Your task to perform on an android device: open chrome and create a bookmark for the current page Image 0: 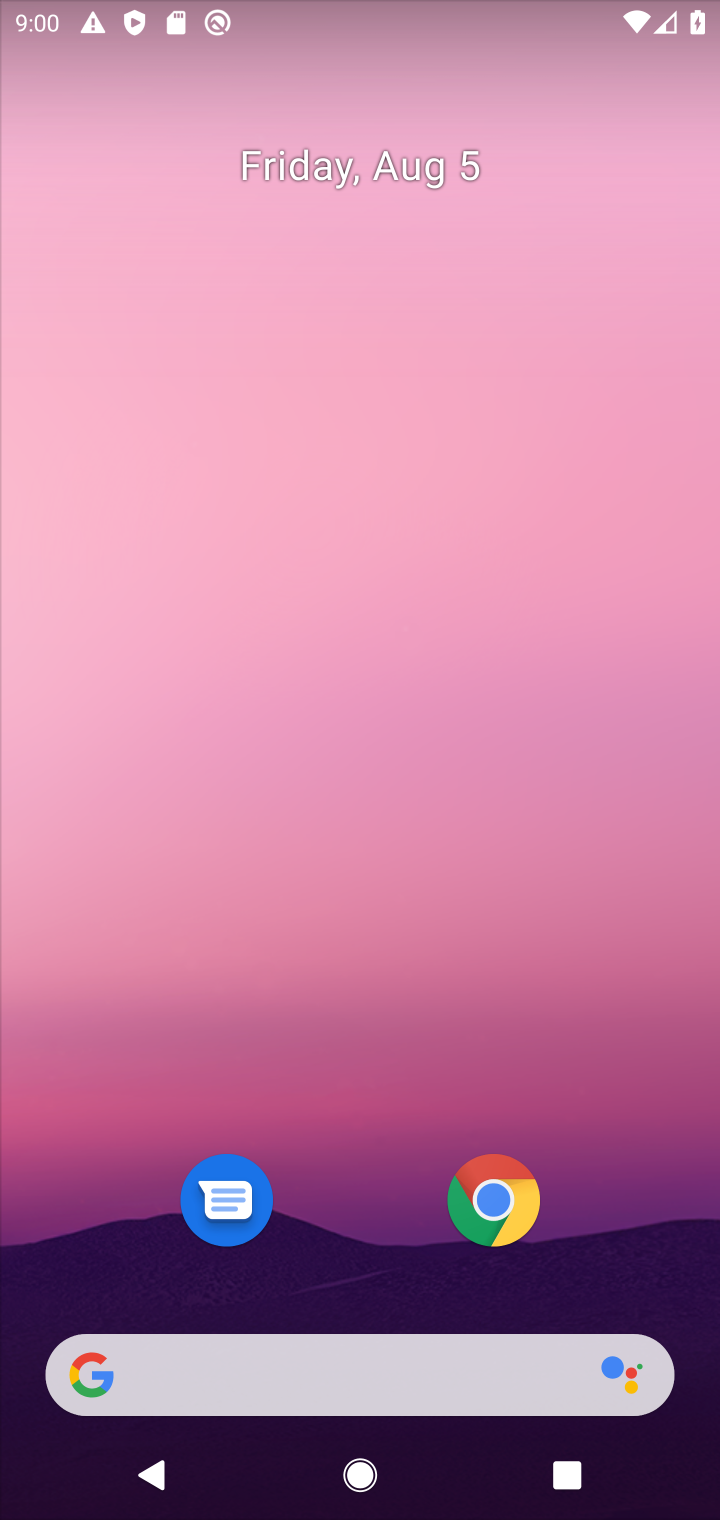
Step 0: drag from (404, 445) to (352, 0)
Your task to perform on an android device: open chrome and create a bookmark for the current page Image 1: 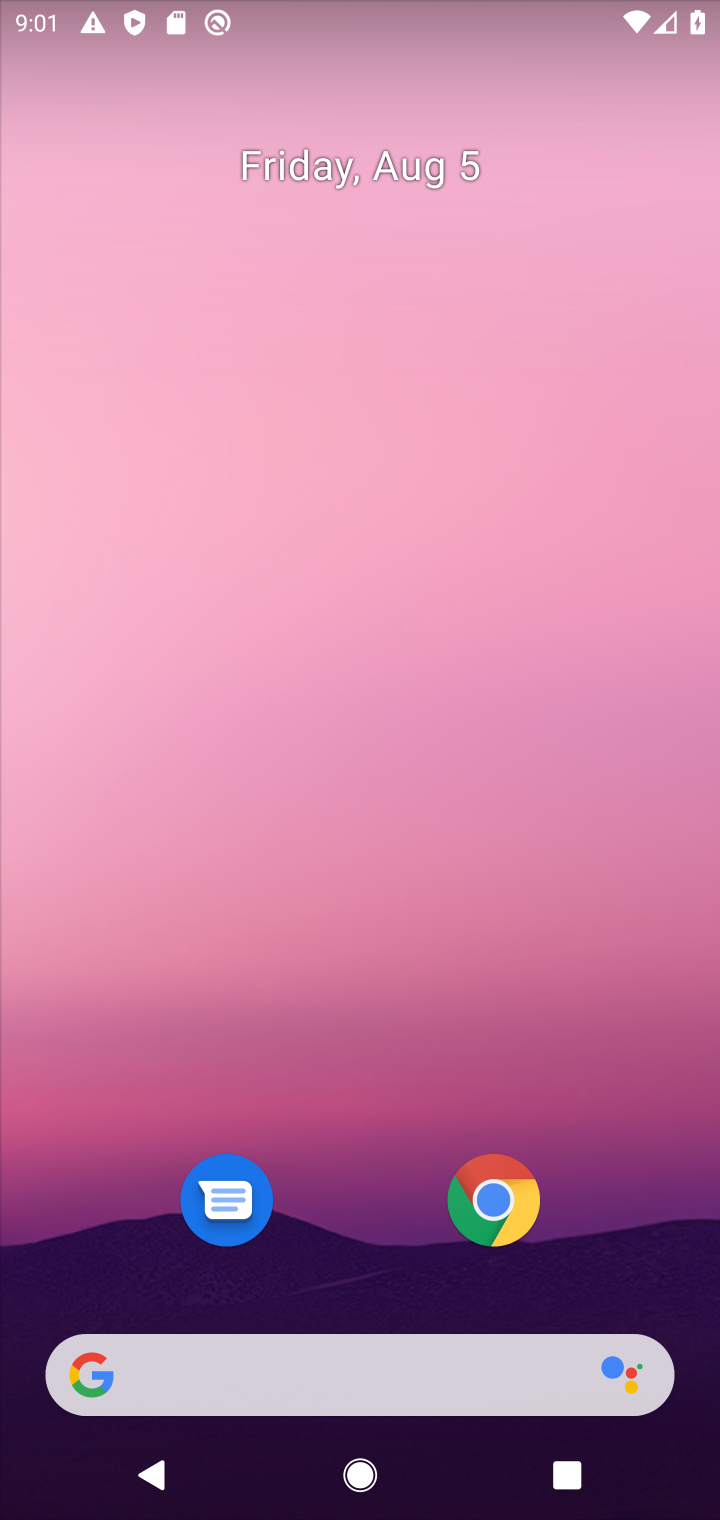
Step 1: drag from (618, 947) to (482, 178)
Your task to perform on an android device: open chrome and create a bookmark for the current page Image 2: 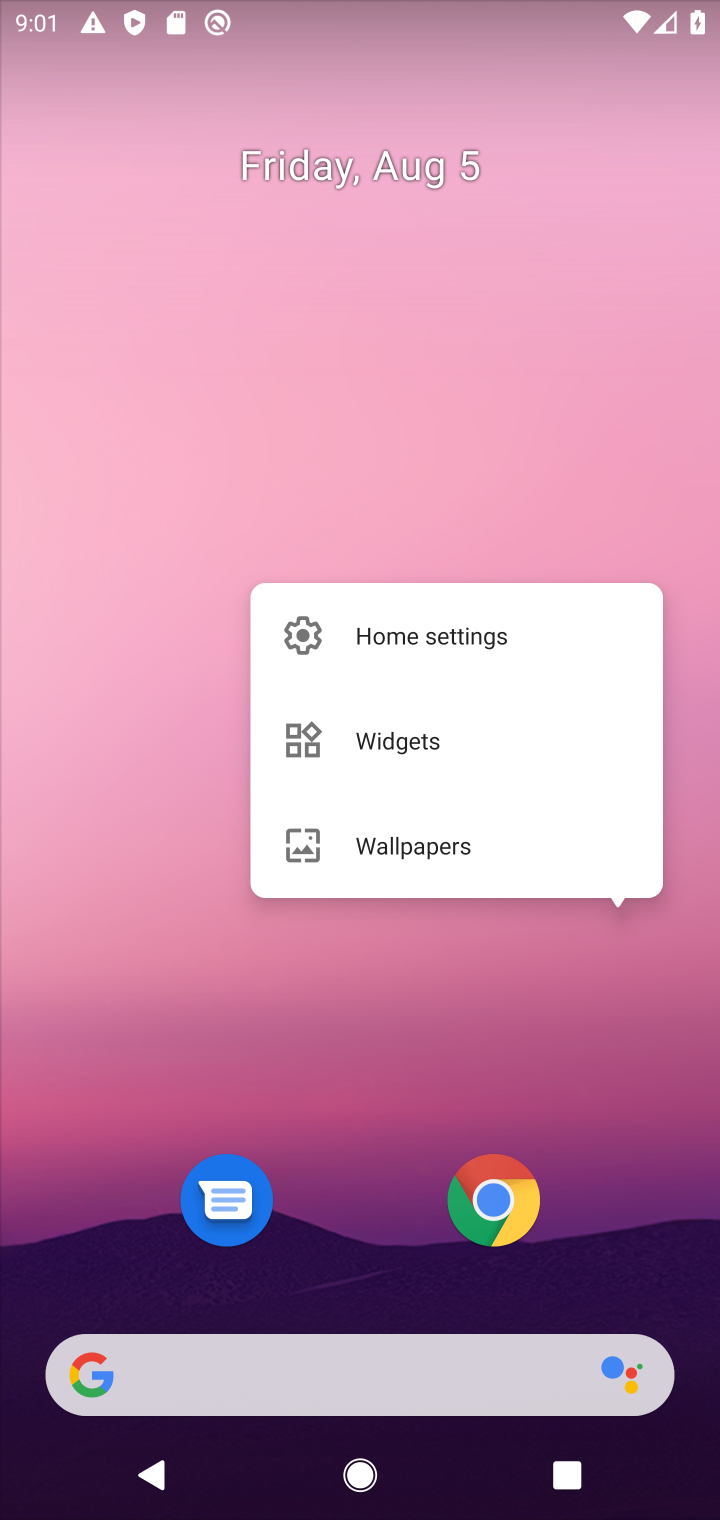
Step 2: click (576, 1076)
Your task to perform on an android device: open chrome and create a bookmark for the current page Image 3: 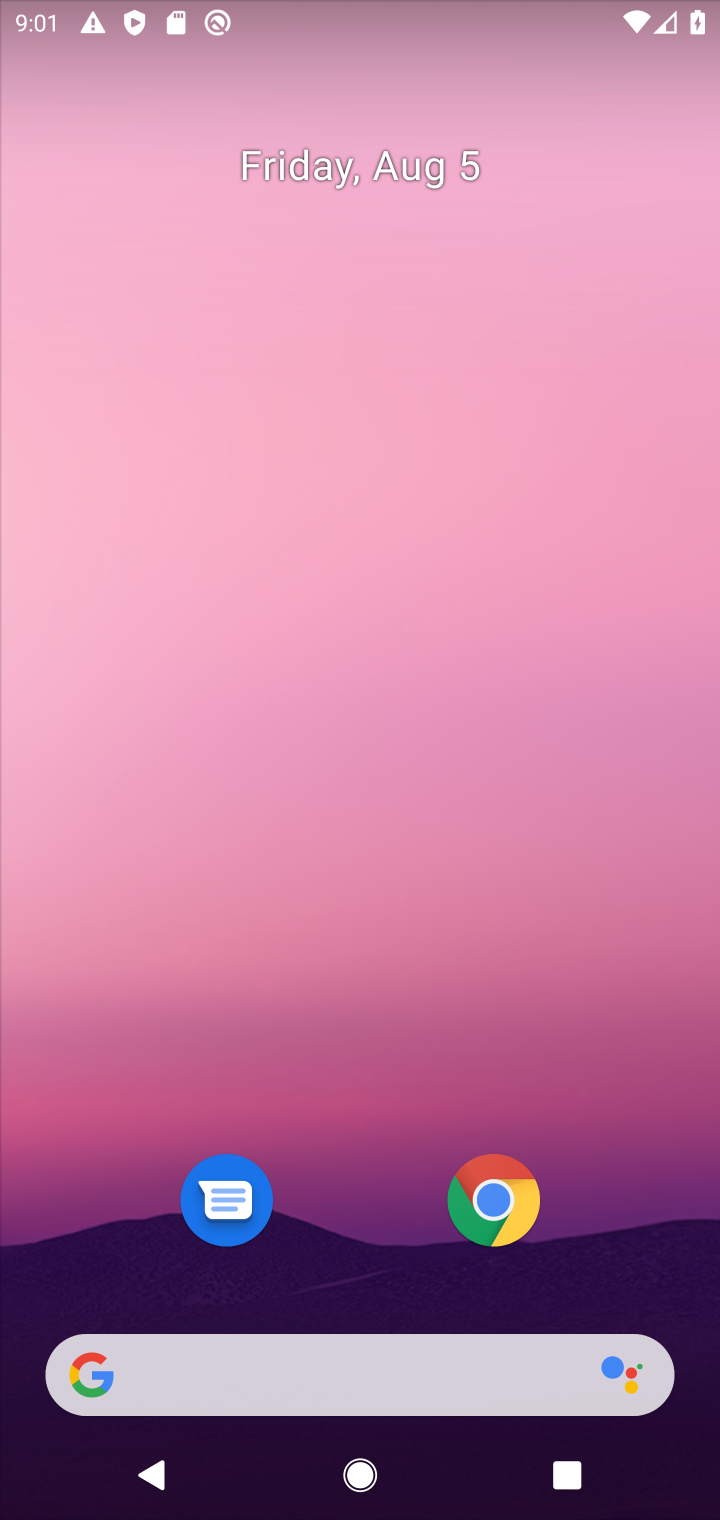
Step 3: click (592, 1131)
Your task to perform on an android device: open chrome and create a bookmark for the current page Image 4: 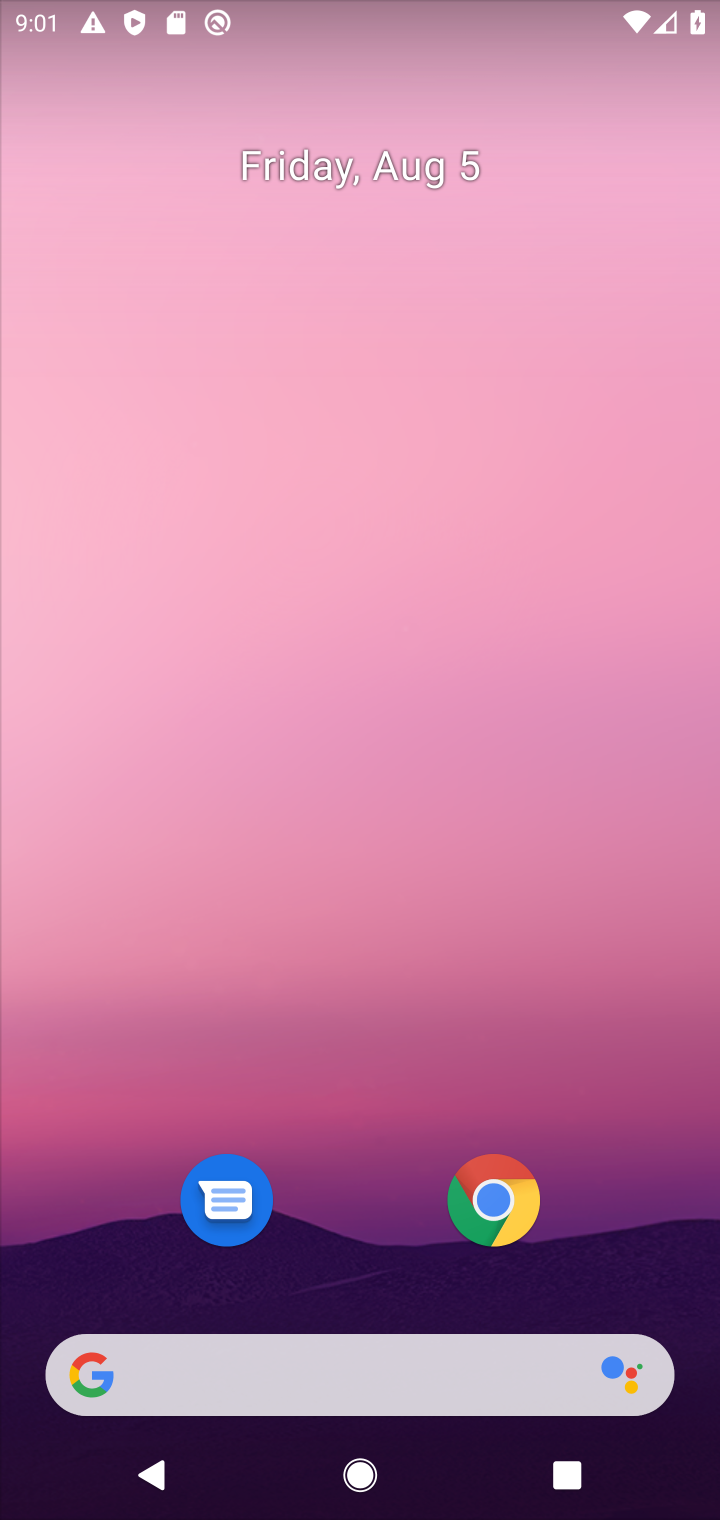
Step 4: drag from (639, 1183) to (560, 103)
Your task to perform on an android device: open chrome and create a bookmark for the current page Image 5: 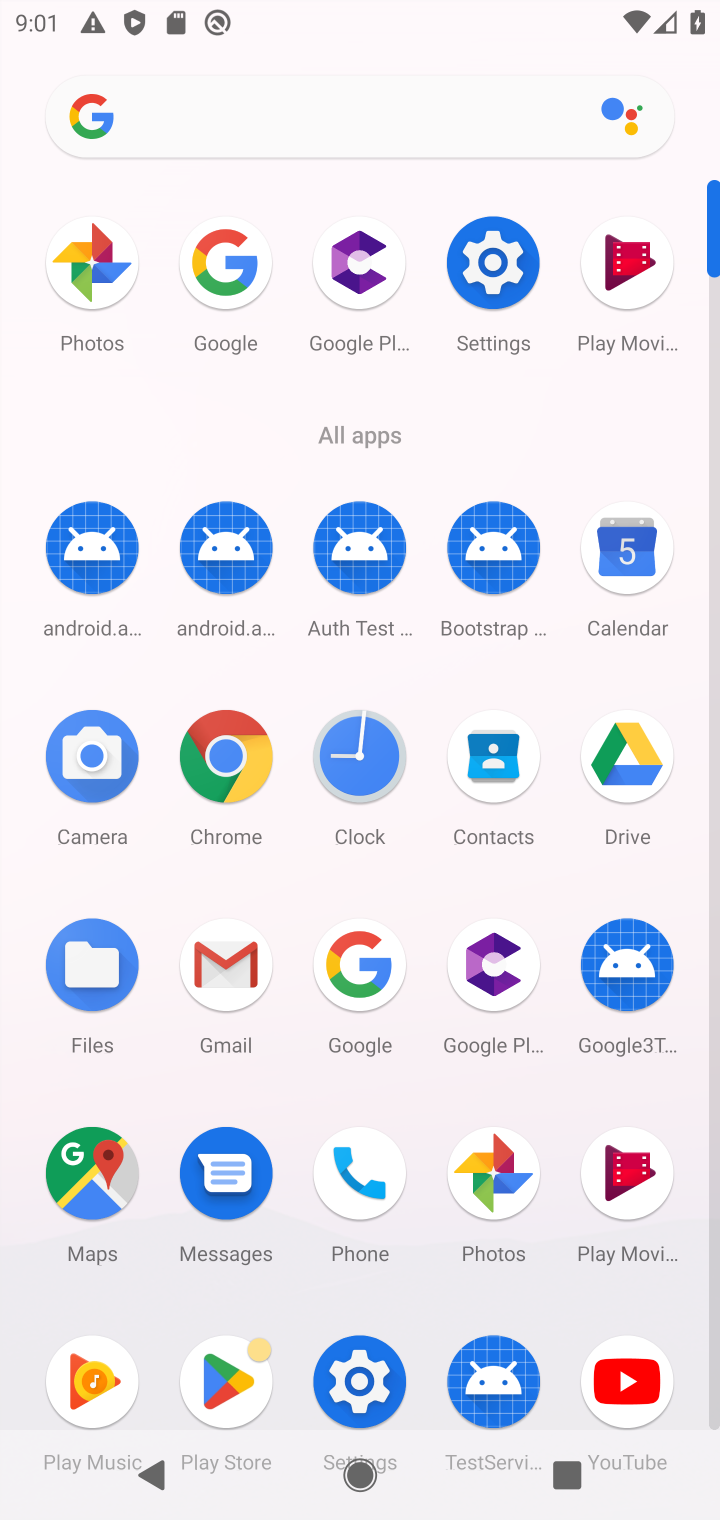
Step 5: click (228, 756)
Your task to perform on an android device: open chrome and create a bookmark for the current page Image 6: 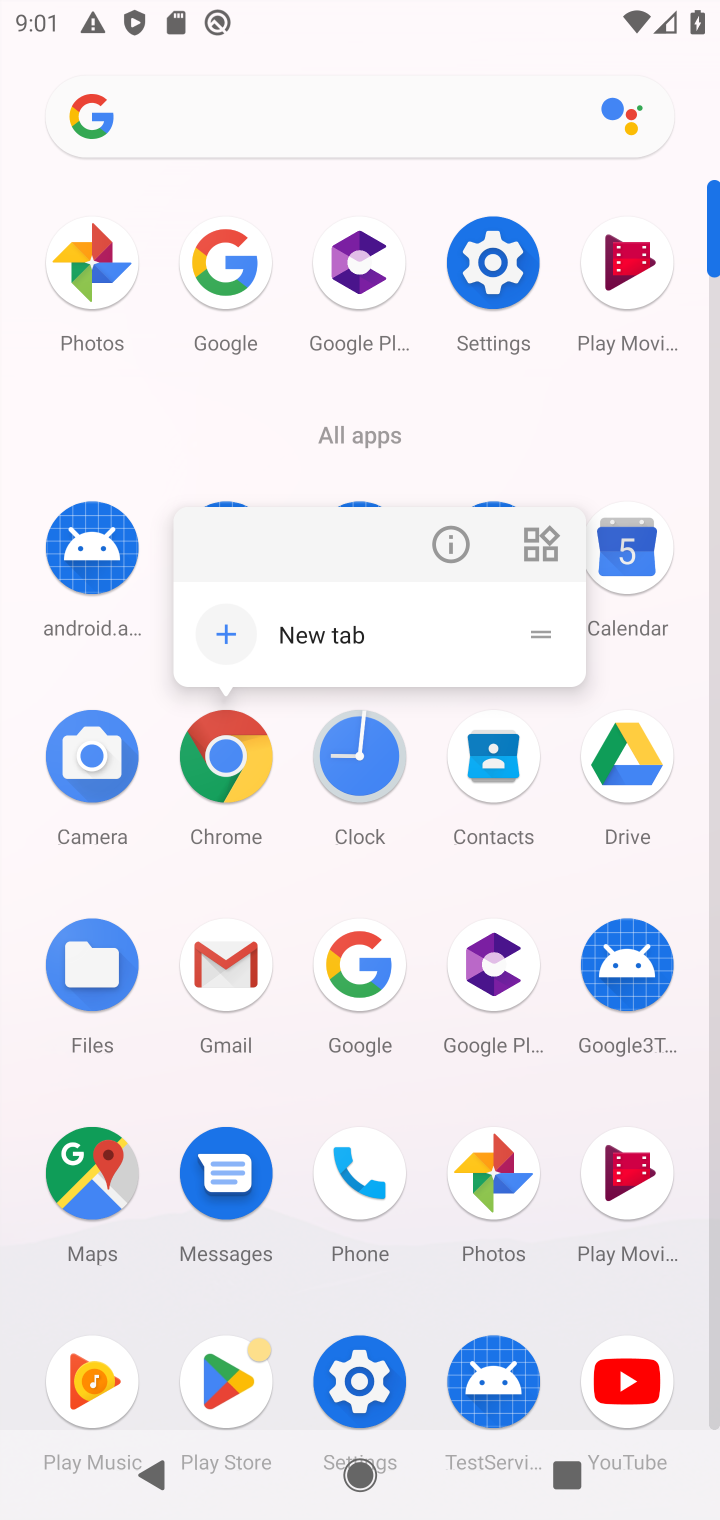
Step 6: click (231, 759)
Your task to perform on an android device: open chrome and create a bookmark for the current page Image 7: 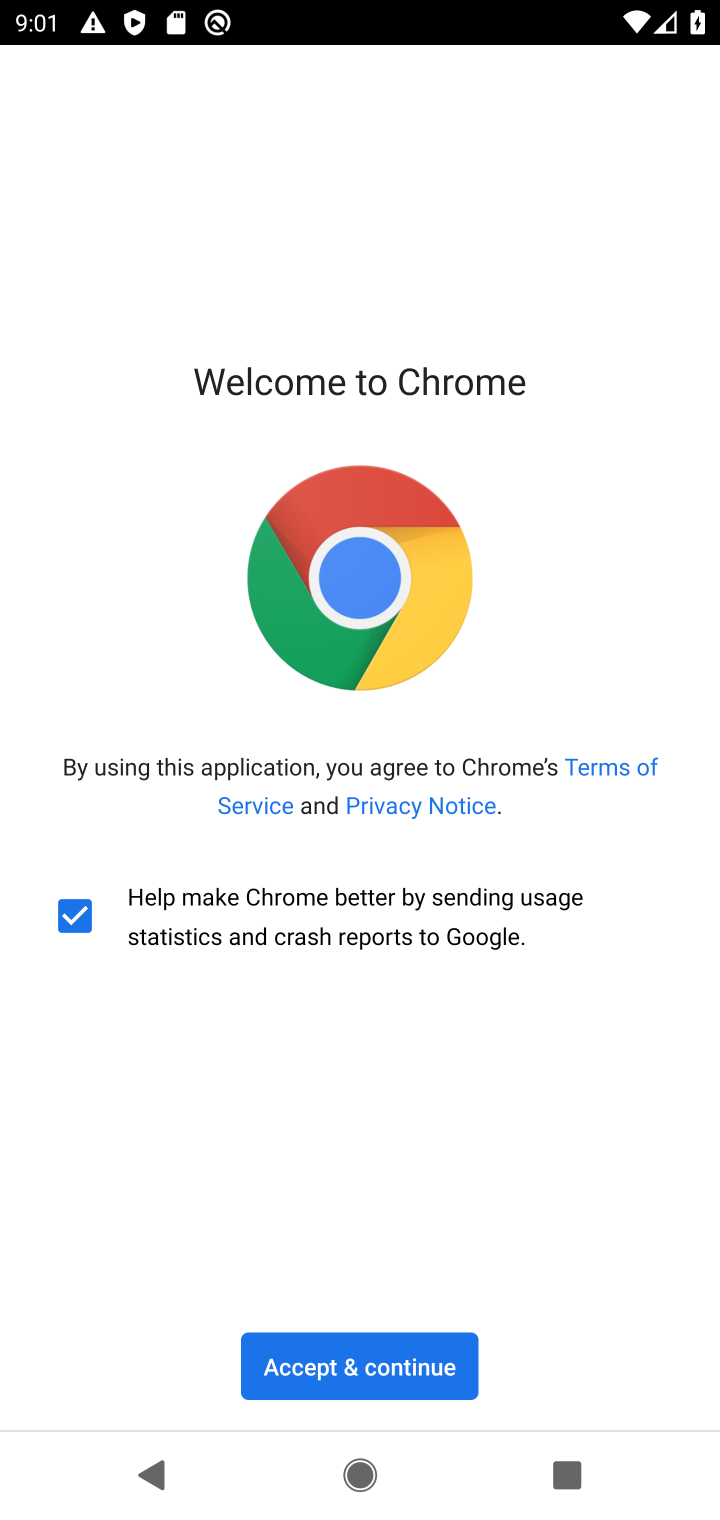
Step 7: click (367, 1364)
Your task to perform on an android device: open chrome and create a bookmark for the current page Image 8: 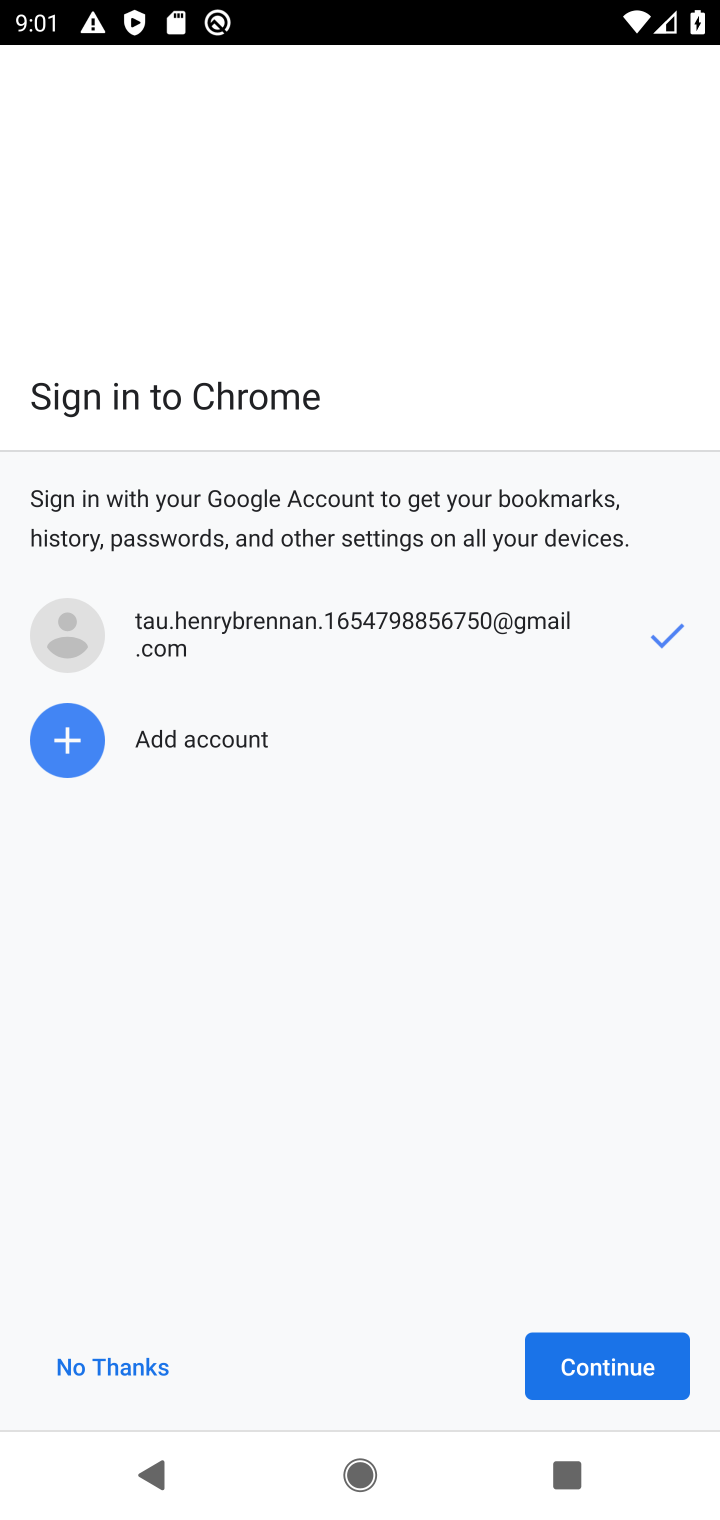
Step 8: click (587, 1365)
Your task to perform on an android device: open chrome and create a bookmark for the current page Image 9: 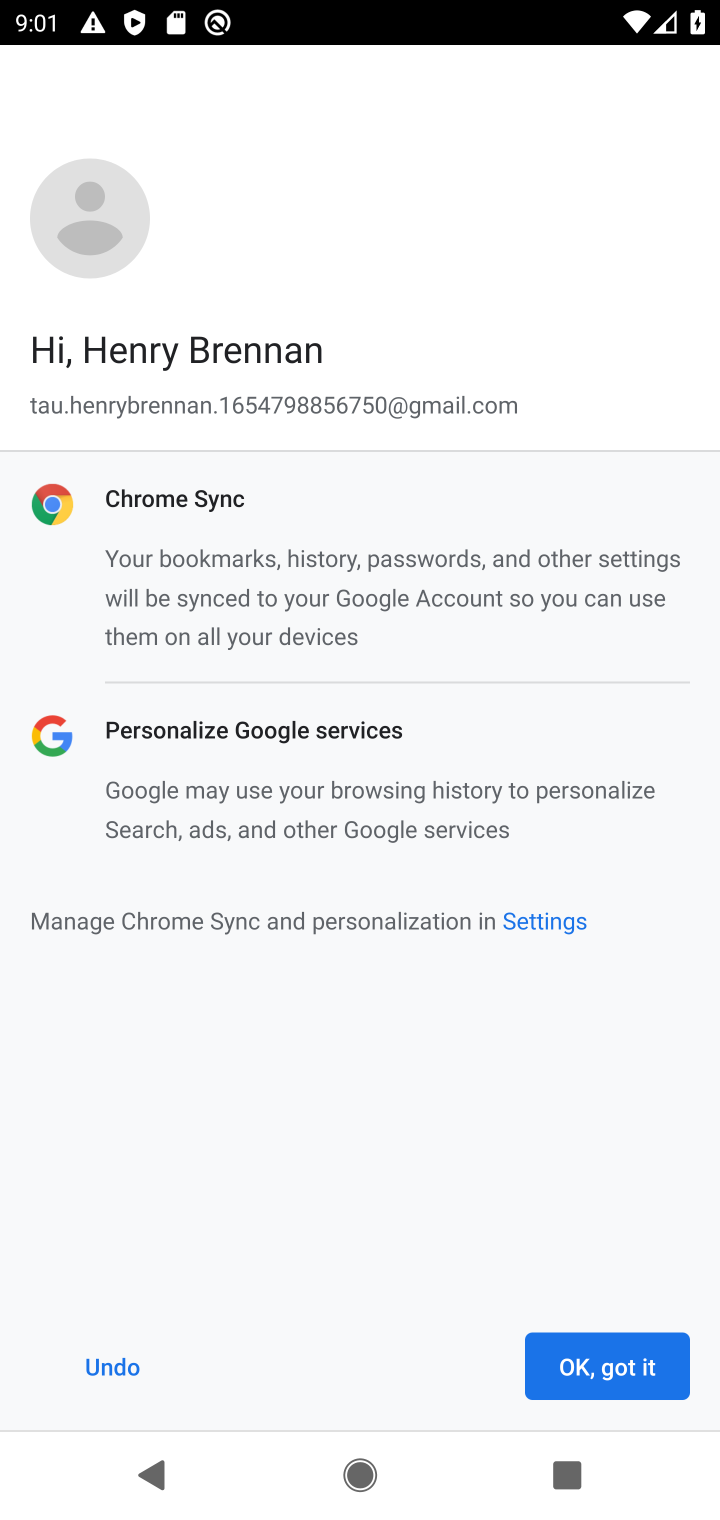
Step 9: click (587, 1365)
Your task to perform on an android device: open chrome and create a bookmark for the current page Image 10: 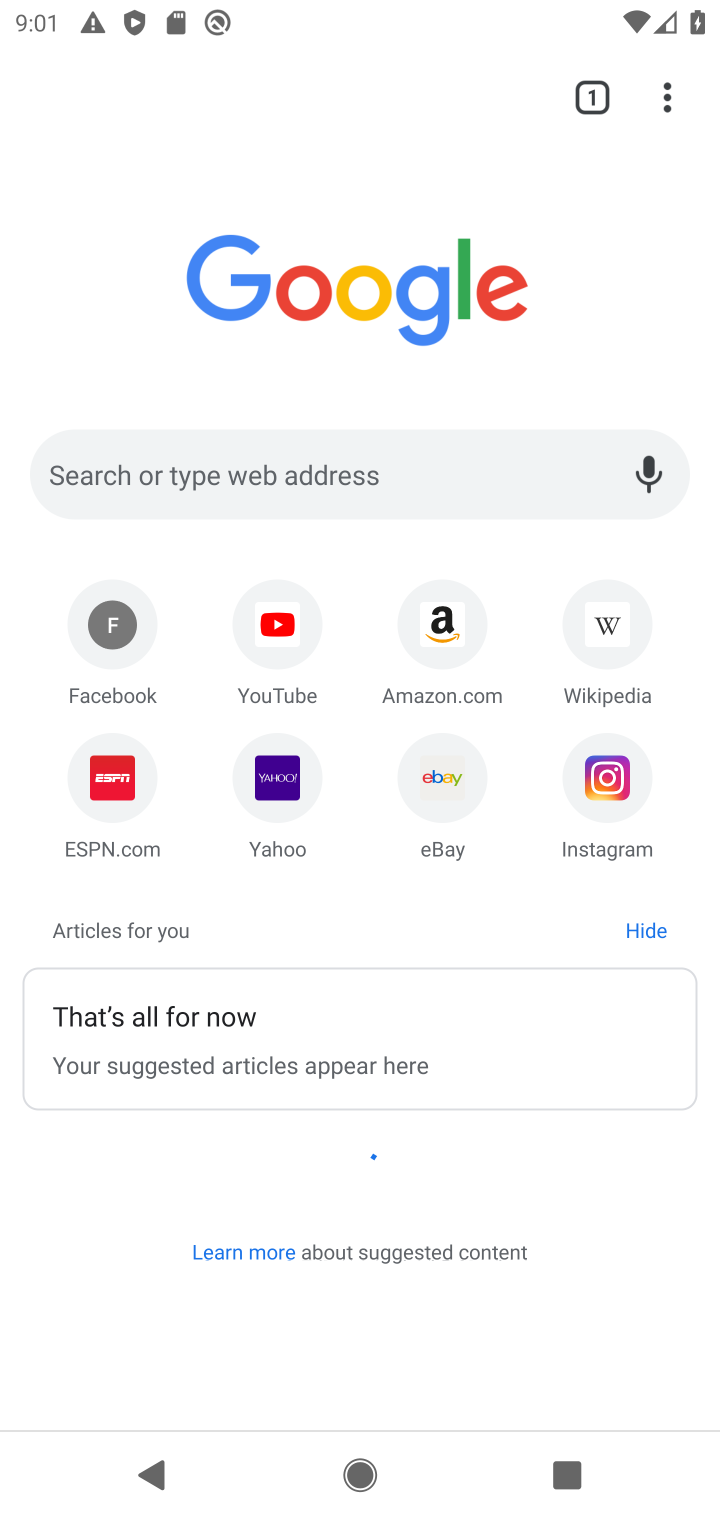
Step 10: task complete